Your task to perform on an android device: Clear the shopping cart on newegg.com. Image 0: 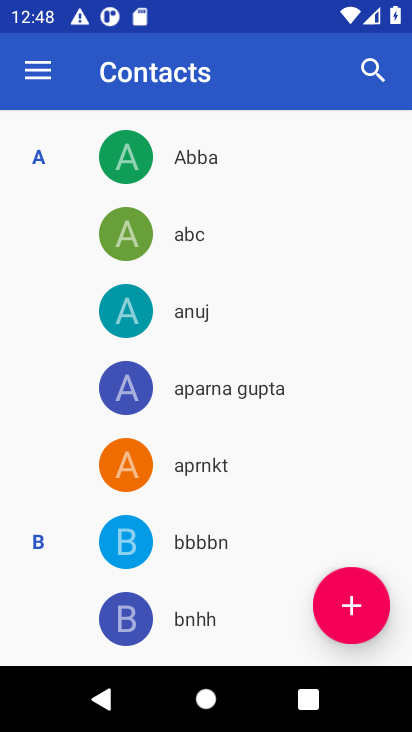
Step 0: press home button
Your task to perform on an android device: Clear the shopping cart on newegg.com. Image 1: 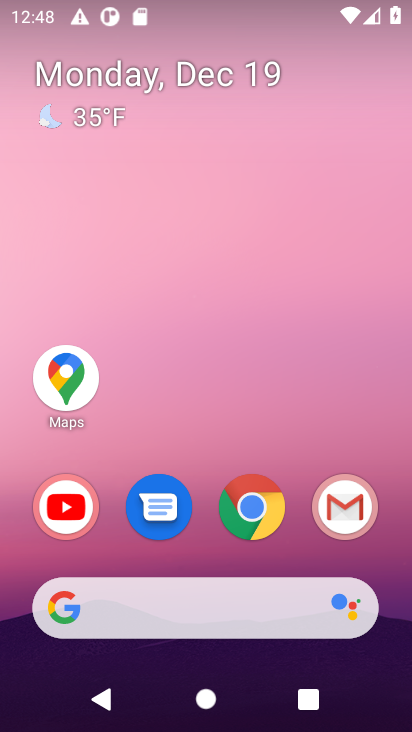
Step 1: click (249, 512)
Your task to perform on an android device: Clear the shopping cart on newegg.com. Image 2: 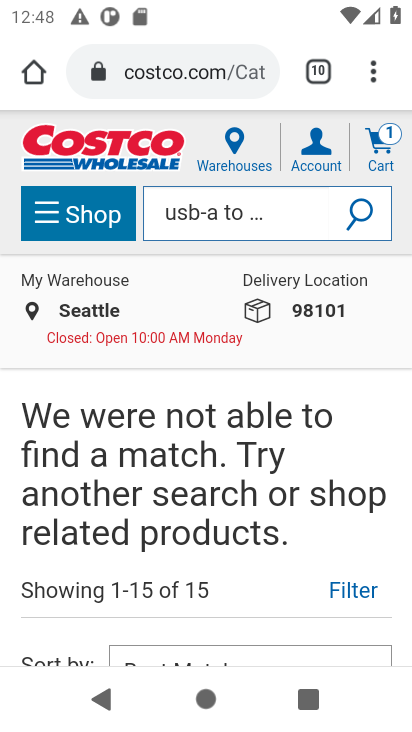
Step 2: click (183, 73)
Your task to perform on an android device: Clear the shopping cart on newegg.com. Image 3: 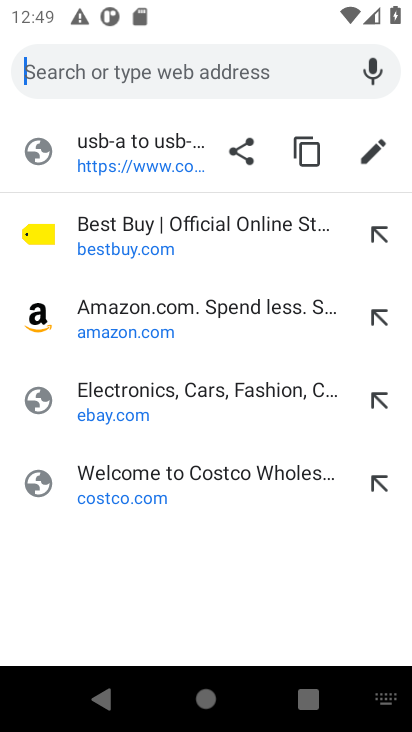
Step 3: type "newegg.com"
Your task to perform on an android device: Clear the shopping cart on newegg.com. Image 4: 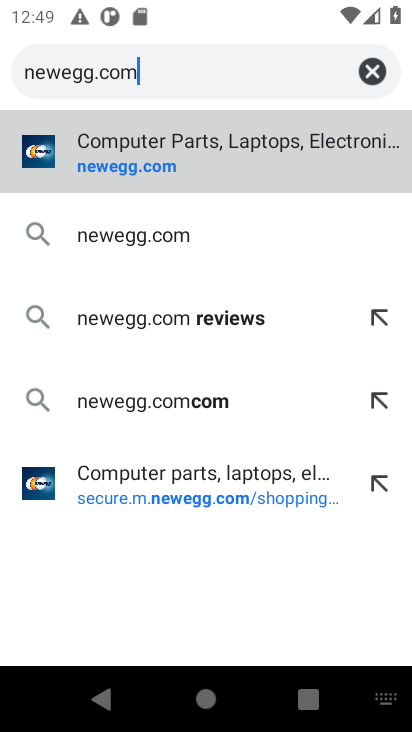
Step 4: click (106, 168)
Your task to perform on an android device: Clear the shopping cart on newegg.com. Image 5: 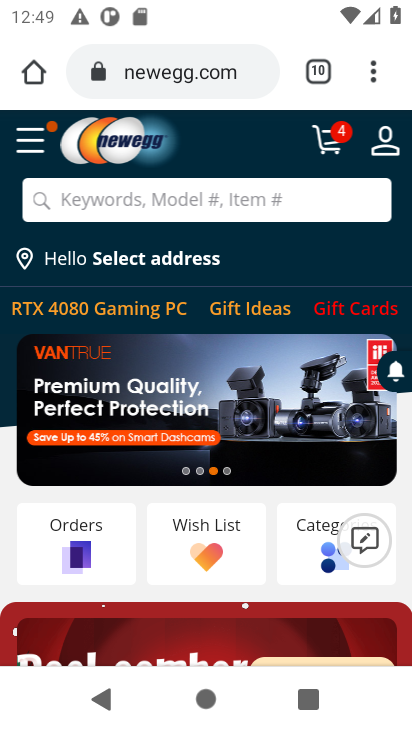
Step 5: click (327, 143)
Your task to perform on an android device: Clear the shopping cart on newegg.com. Image 6: 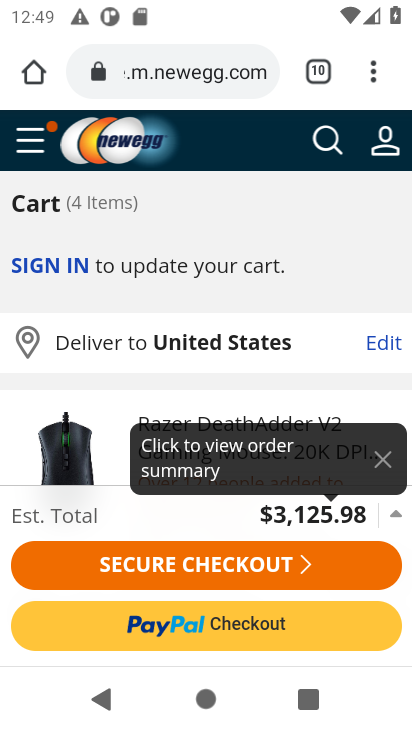
Step 6: drag from (181, 360) to (181, 186)
Your task to perform on an android device: Clear the shopping cart on newegg.com. Image 7: 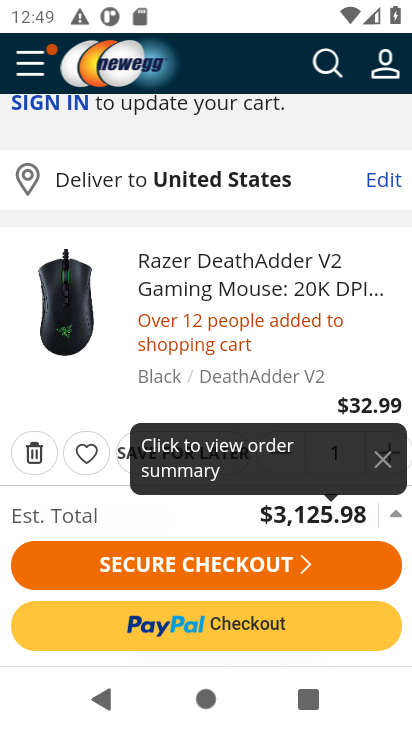
Step 7: click (32, 451)
Your task to perform on an android device: Clear the shopping cart on newegg.com. Image 8: 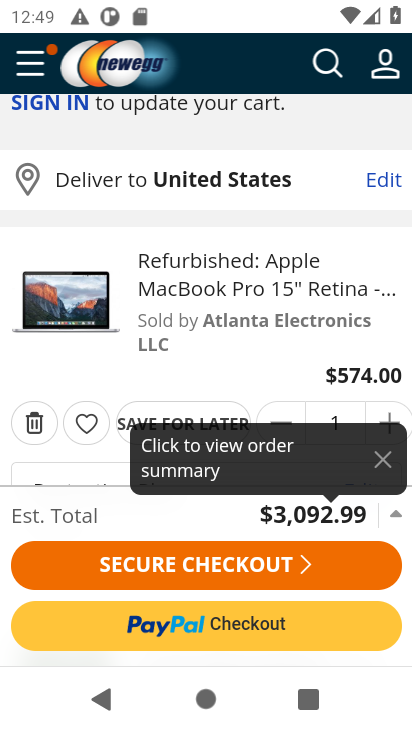
Step 8: click (31, 435)
Your task to perform on an android device: Clear the shopping cart on newegg.com. Image 9: 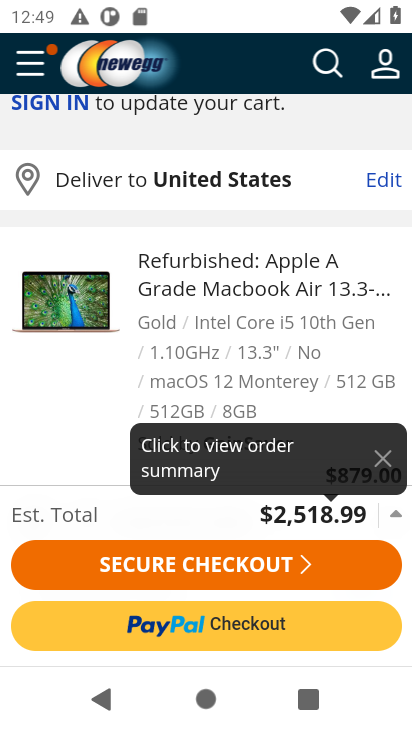
Step 9: drag from (58, 382) to (67, 279)
Your task to perform on an android device: Clear the shopping cart on newegg.com. Image 10: 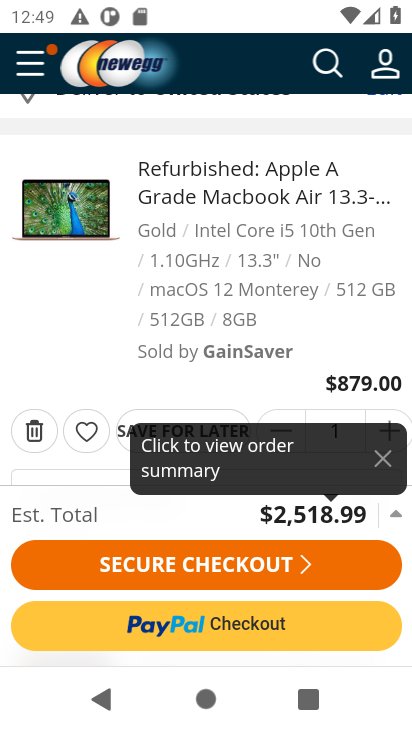
Step 10: click (27, 424)
Your task to perform on an android device: Clear the shopping cart on newegg.com. Image 11: 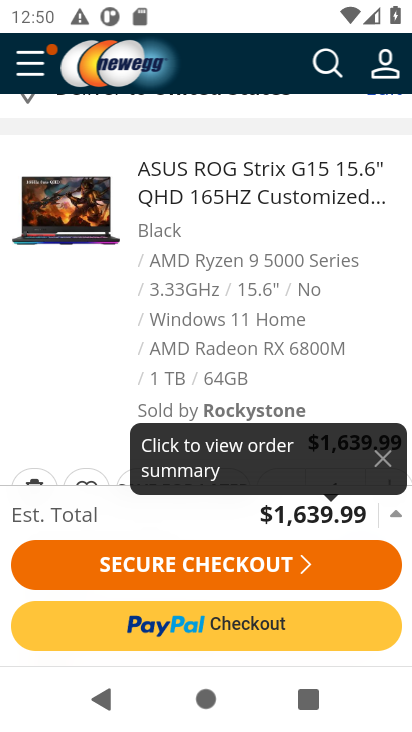
Step 11: drag from (56, 376) to (65, 253)
Your task to perform on an android device: Clear the shopping cart on newegg.com. Image 12: 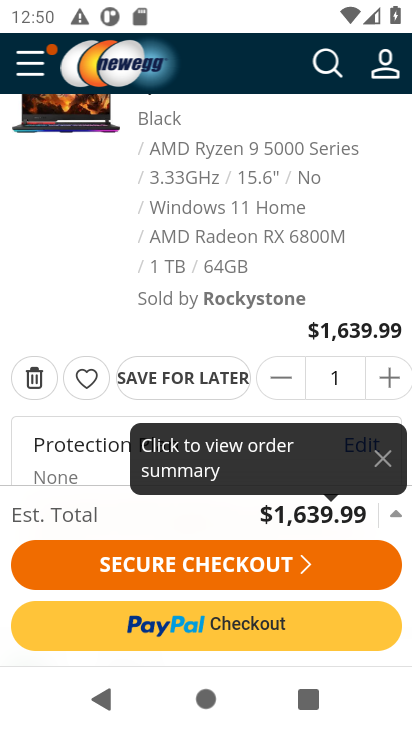
Step 12: click (32, 385)
Your task to perform on an android device: Clear the shopping cart on newegg.com. Image 13: 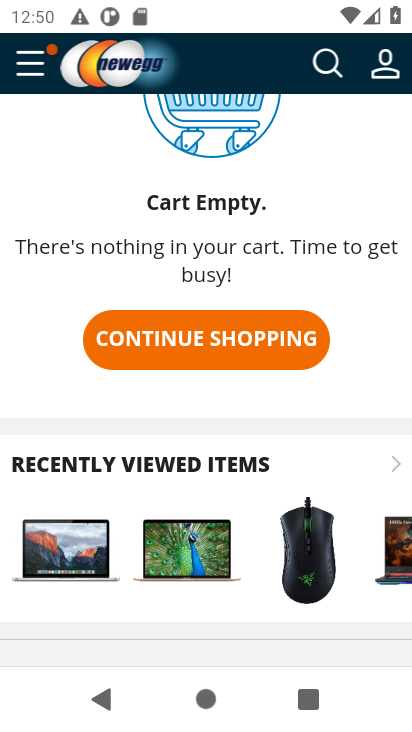
Step 13: task complete